Your task to perform on an android device: refresh tabs in the chrome app Image 0: 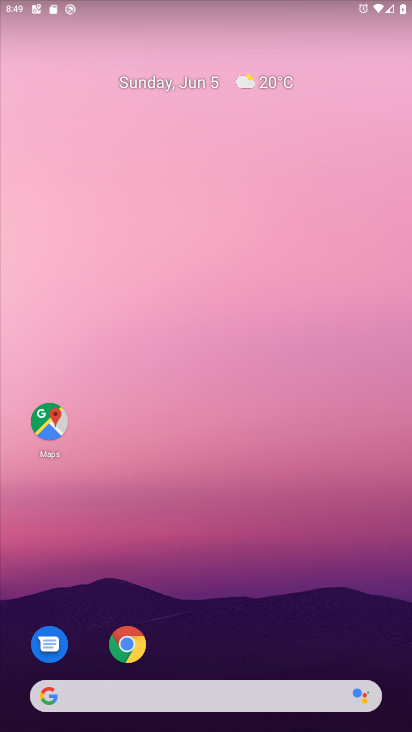
Step 0: drag from (195, 599) to (221, 252)
Your task to perform on an android device: refresh tabs in the chrome app Image 1: 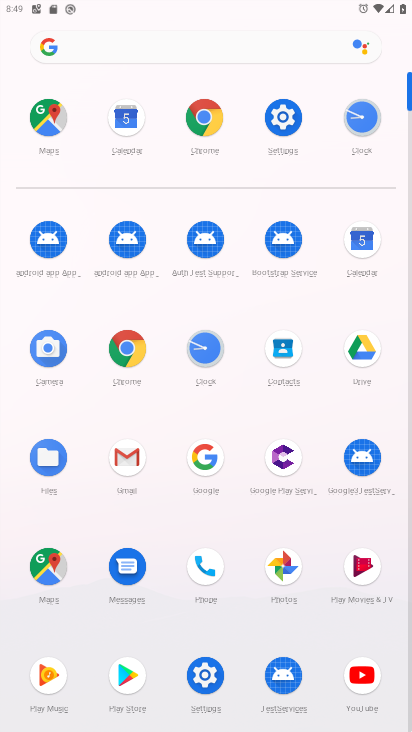
Step 1: click (125, 366)
Your task to perform on an android device: refresh tabs in the chrome app Image 2: 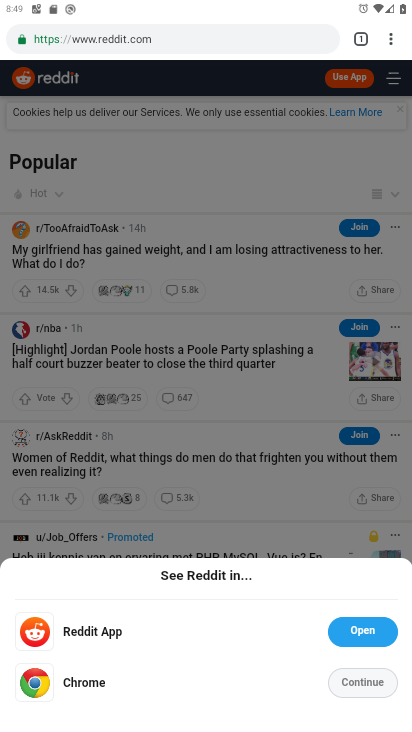
Step 2: click (398, 41)
Your task to perform on an android device: refresh tabs in the chrome app Image 3: 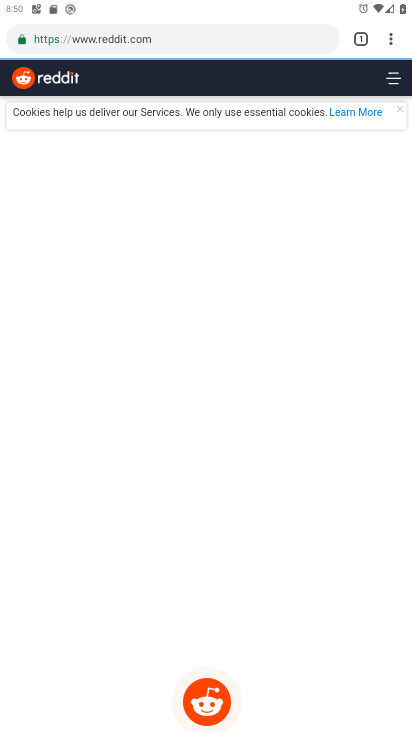
Step 3: task complete